Your task to perform on an android device: Open display settings Image 0: 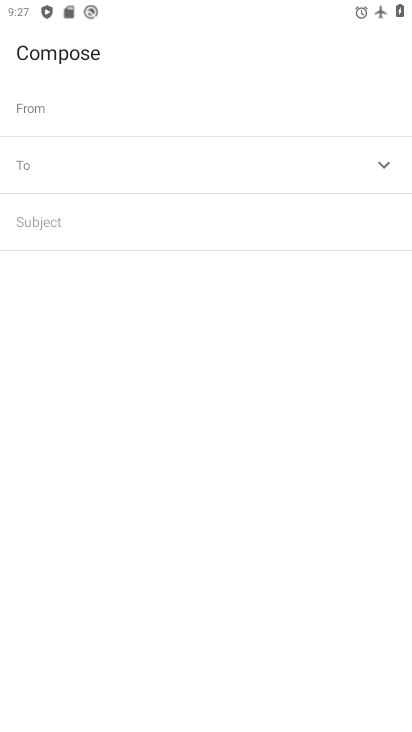
Step 0: drag from (175, 616) to (163, 139)
Your task to perform on an android device: Open display settings Image 1: 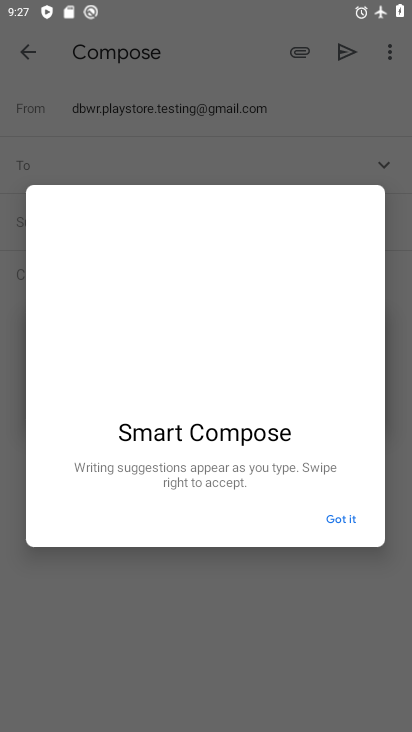
Step 1: press home button
Your task to perform on an android device: Open display settings Image 2: 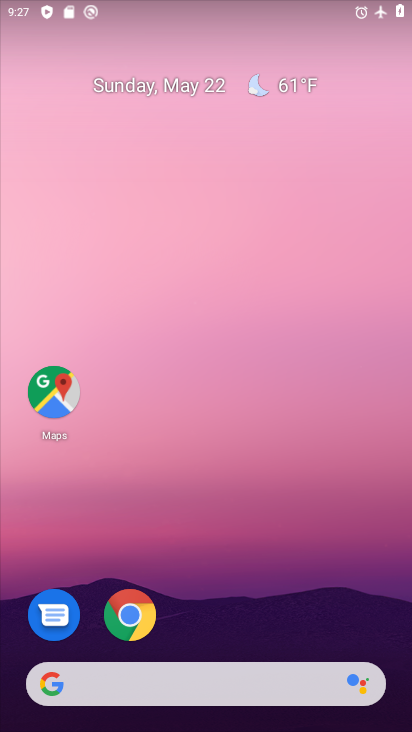
Step 2: drag from (299, 599) to (282, 166)
Your task to perform on an android device: Open display settings Image 3: 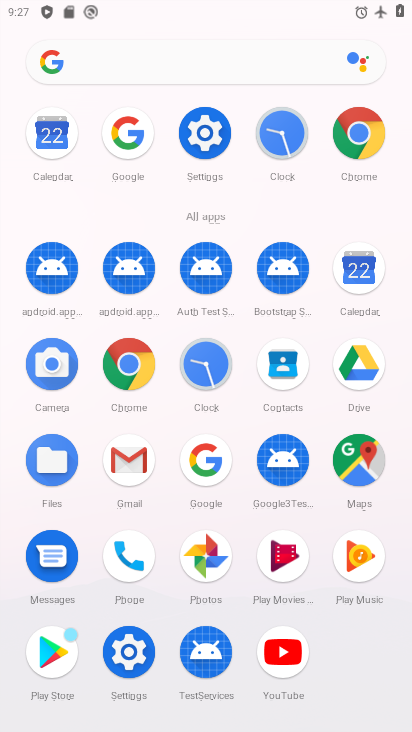
Step 3: click (130, 658)
Your task to perform on an android device: Open display settings Image 4: 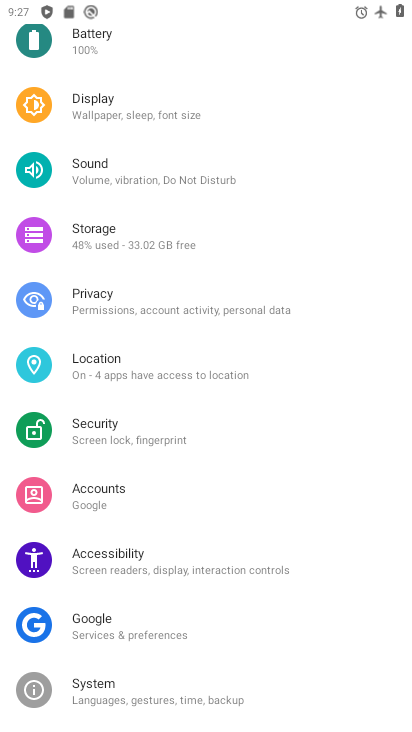
Step 4: click (109, 100)
Your task to perform on an android device: Open display settings Image 5: 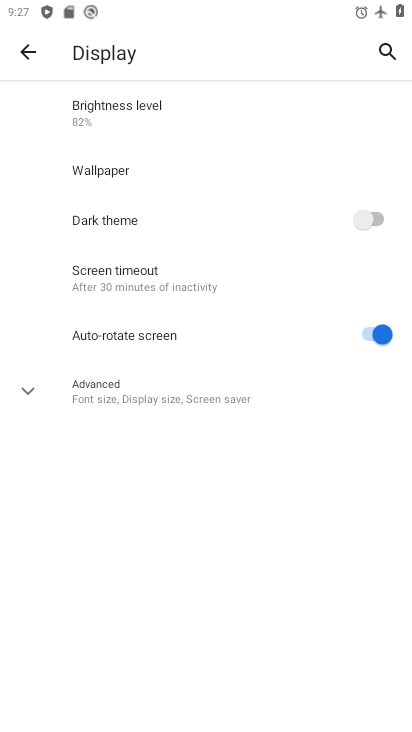
Step 5: task complete